Your task to perform on an android device: toggle notification dots Image 0: 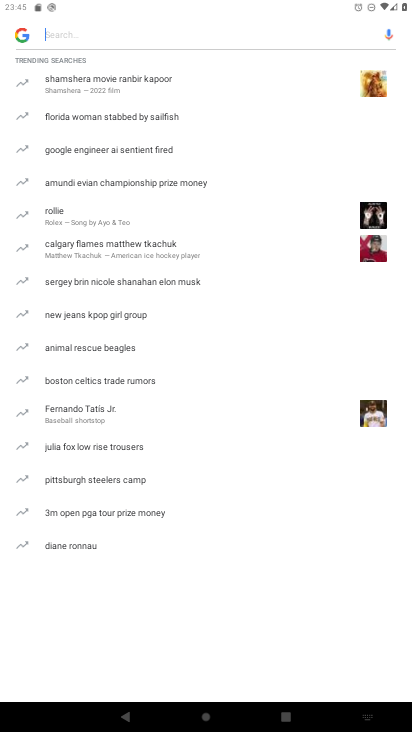
Step 0: press home button
Your task to perform on an android device: toggle notification dots Image 1: 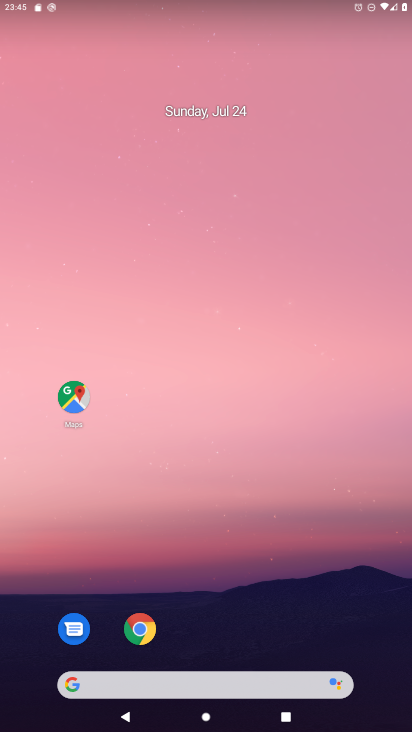
Step 1: drag from (186, 647) to (403, 158)
Your task to perform on an android device: toggle notification dots Image 2: 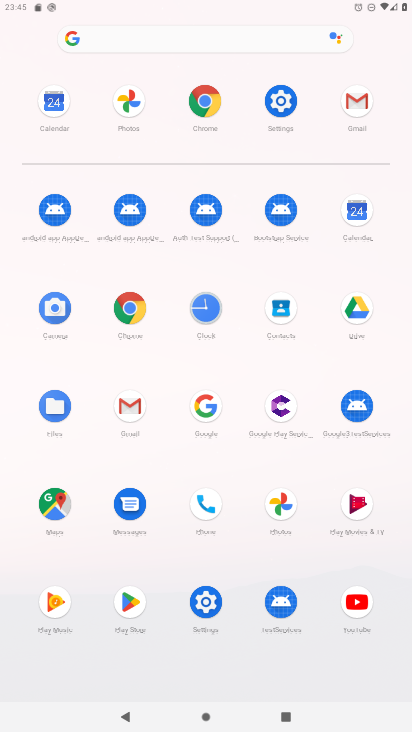
Step 2: click (279, 144)
Your task to perform on an android device: toggle notification dots Image 3: 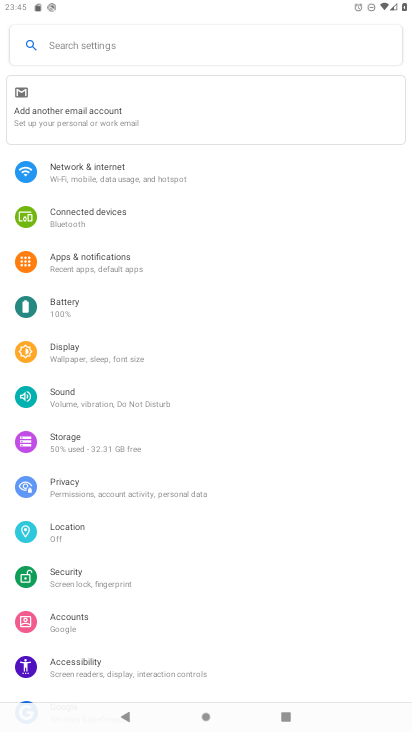
Step 3: click (103, 260)
Your task to perform on an android device: toggle notification dots Image 4: 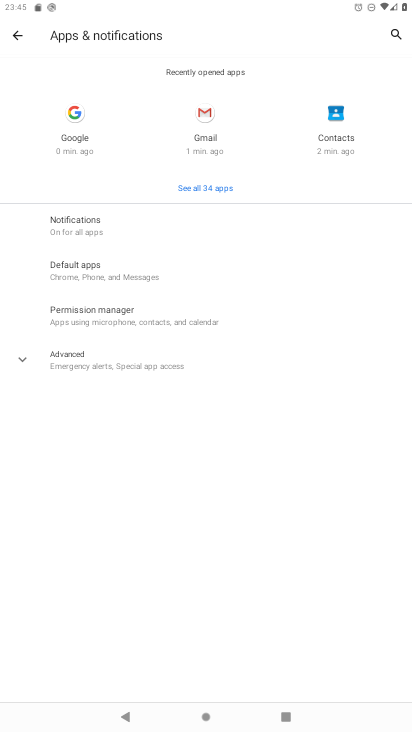
Step 4: click (123, 230)
Your task to perform on an android device: toggle notification dots Image 5: 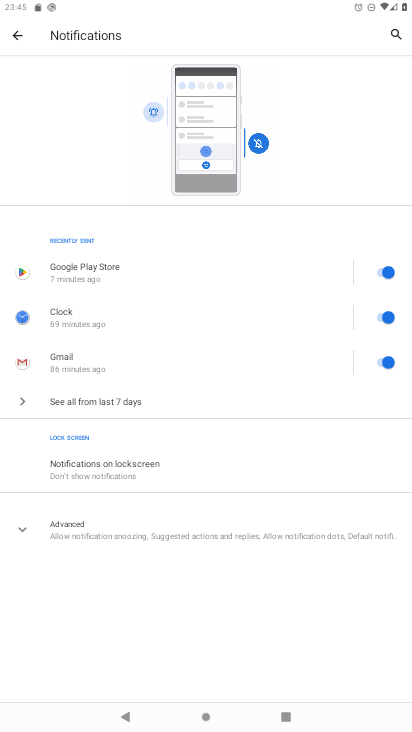
Step 5: click (89, 519)
Your task to perform on an android device: toggle notification dots Image 6: 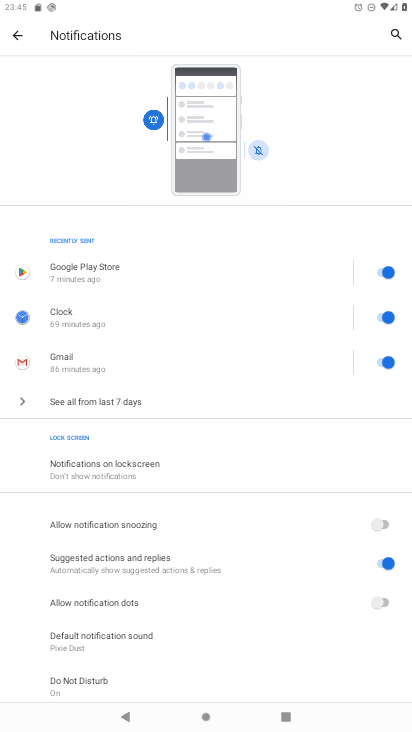
Step 6: drag from (202, 616) to (261, 188)
Your task to perform on an android device: toggle notification dots Image 7: 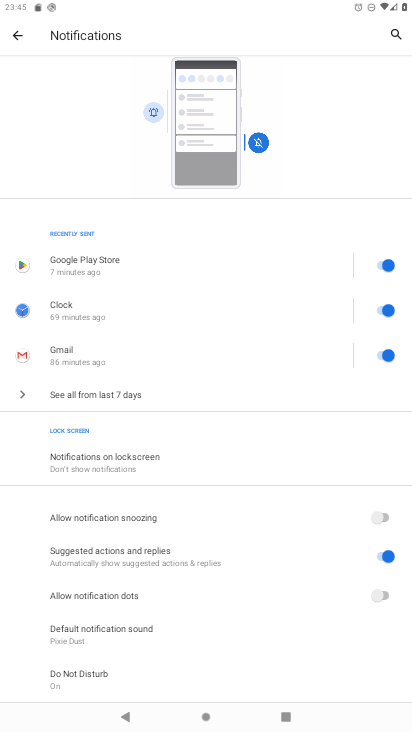
Step 7: click (259, 594)
Your task to perform on an android device: toggle notification dots Image 8: 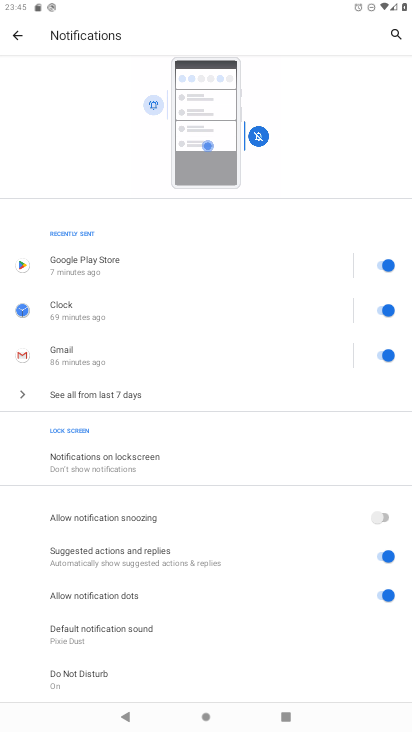
Step 8: task complete